Your task to perform on an android device: Open sound settings Image 0: 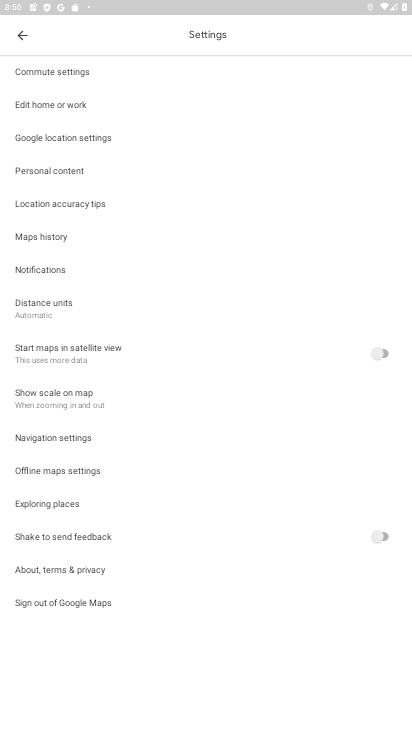
Step 0: press home button
Your task to perform on an android device: Open sound settings Image 1: 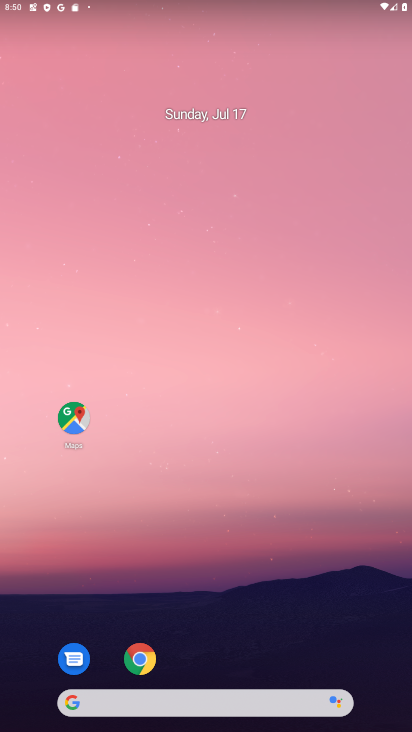
Step 1: drag from (253, 631) to (289, 255)
Your task to perform on an android device: Open sound settings Image 2: 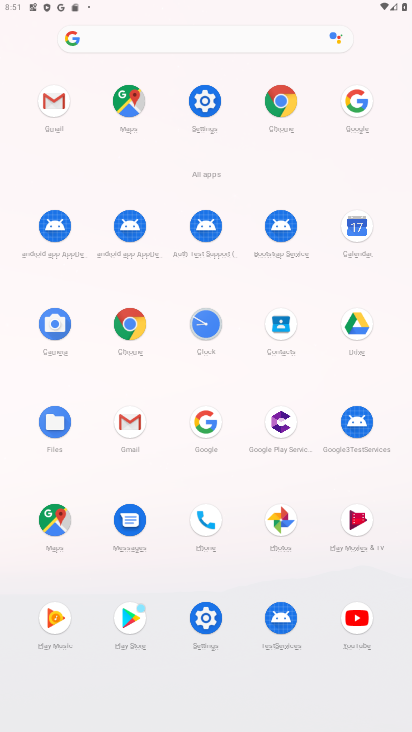
Step 2: click (205, 622)
Your task to perform on an android device: Open sound settings Image 3: 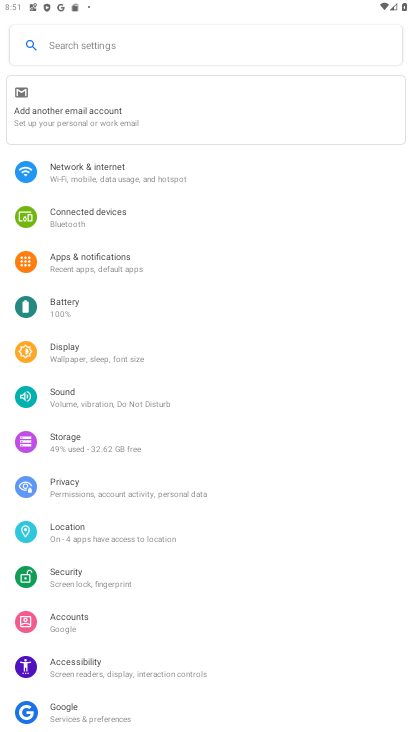
Step 3: click (63, 398)
Your task to perform on an android device: Open sound settings Image 4: 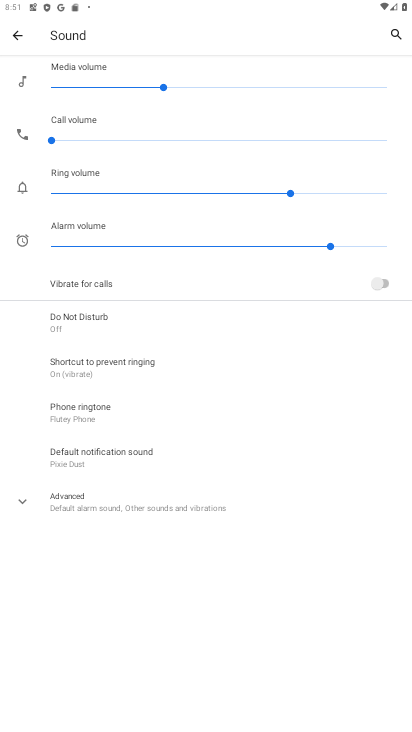
Step 4: task complete